Your task to perform on an android device: Search for seafood restaurants on Google Maps Image 0: 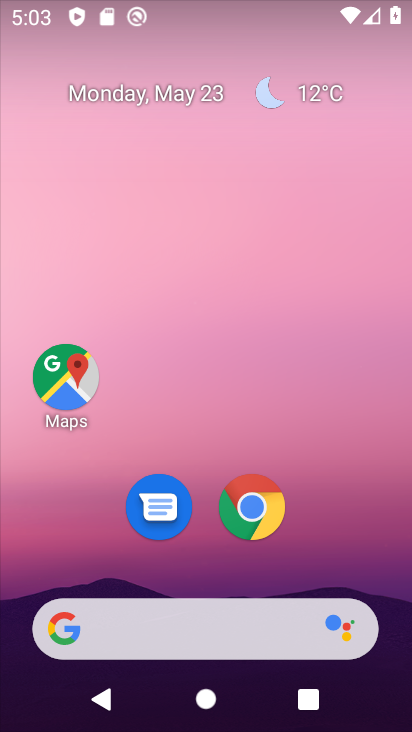
Step 0: press home button
Your task to perform on an android device: Search for seafood restaurants on Google Maps Image 1: 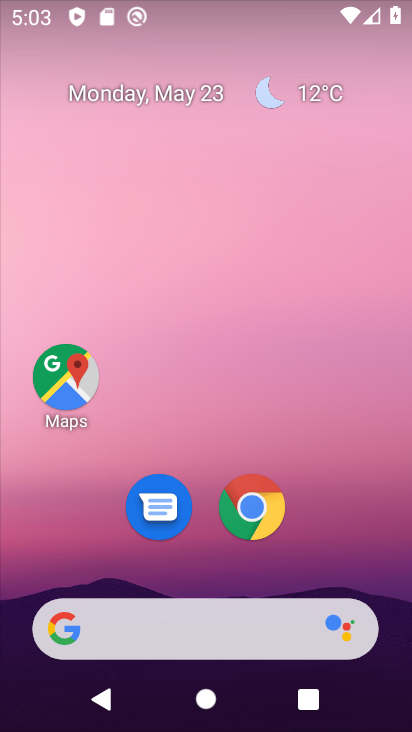
Step 1: click (40, 360)
Your task to perform on an android device: Search for seafood restaurants on Google Maps Image 2: 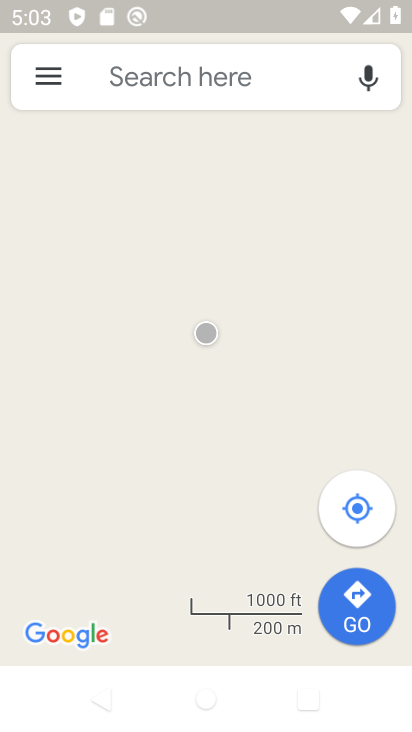
Step 2: click (175, 74)
Your task to perform on an android device: Search for seafood restaurants on Google Maps Image 3: 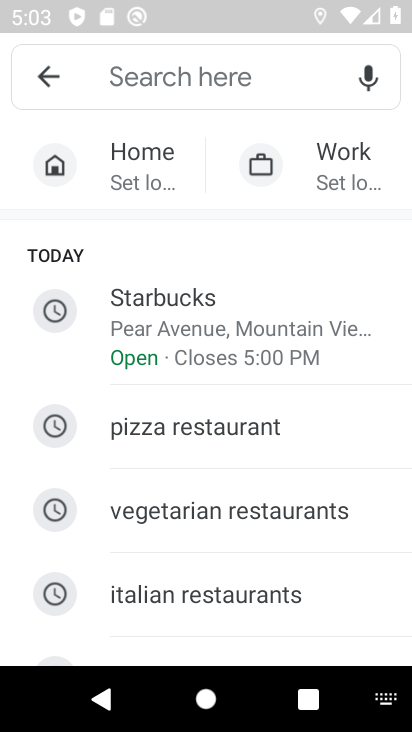
Step 3: drag from (5, 707) to (242, 225)
Your task to perform on an android device: Search for seafood restaurants on Google Maps Image 4: 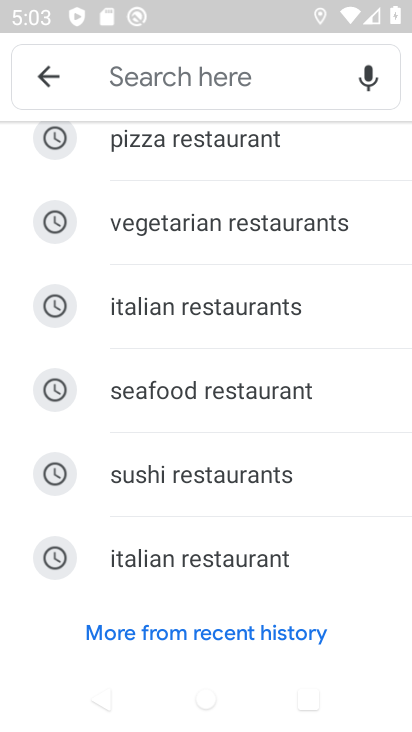
Step 4: click (269, 405)
Your task to perform on an android device: Search for seafood restaurants on Google Maps Image 5: 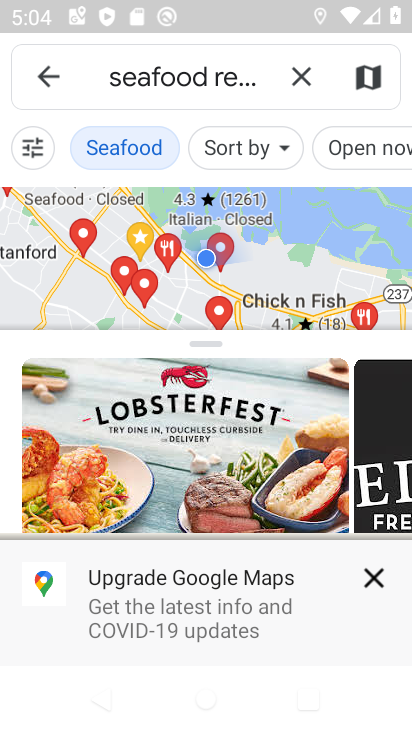
Step 5: click (379, 574)
Your task to perform on an android device: Search for seafood restaurants on Google Maps Image 6: 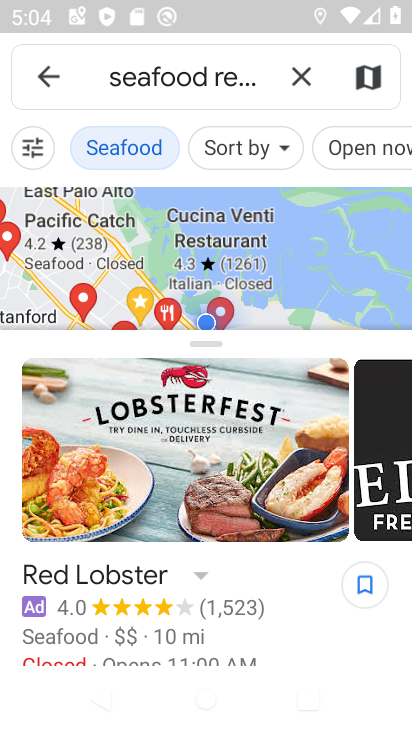
Step 6: task complete